Your task to perform on an android device: toggle notification dots Image 0: 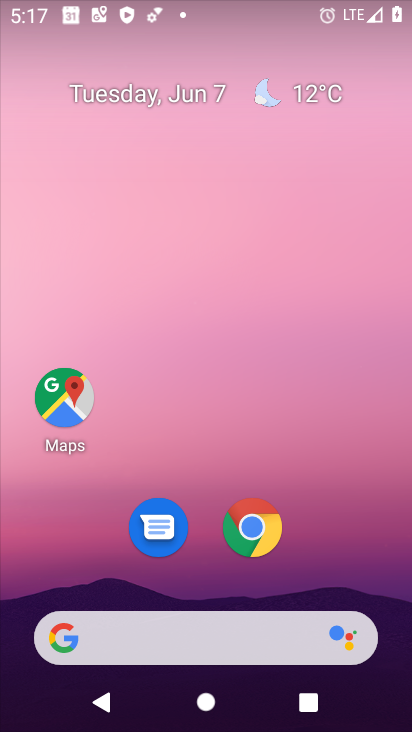
Step 0: drag from (324, 570) to (229, 5)
Your task to perform on an android device: toggle notification dots Image 1: 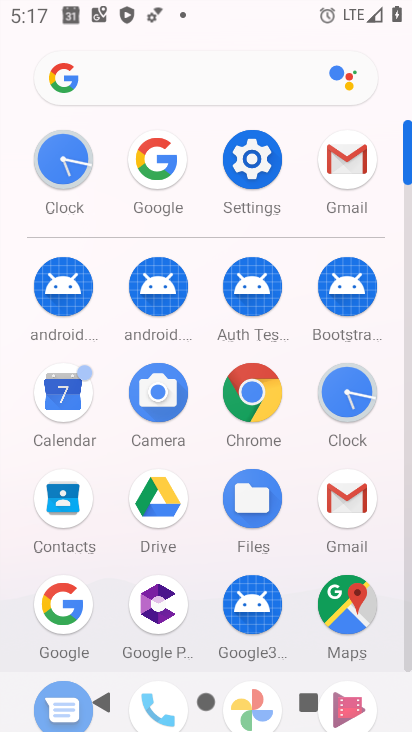
Step 1: click (251, 159)
Your task to perform on an android device: toggle notification dots Image 2: 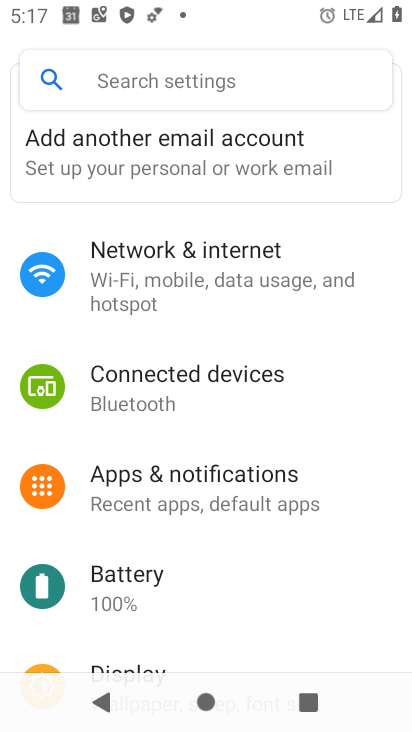
Step 2: click (193, 480)
Your task to perform on an android device: toggle notification dots Image 3: 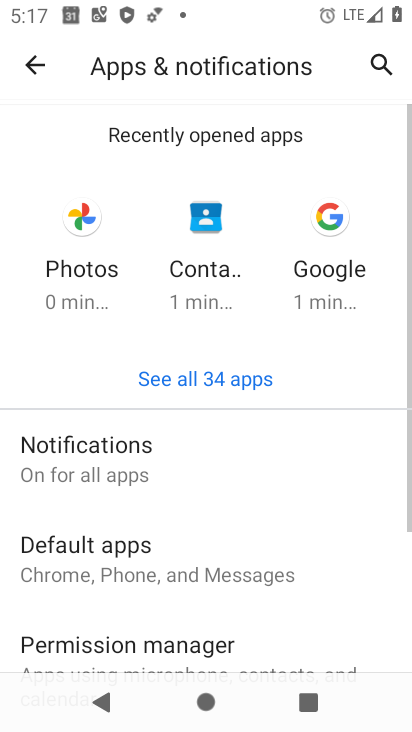
Step 3: click (129, 459)
Your task to perform on an android device: toggle notification dots Image 4: 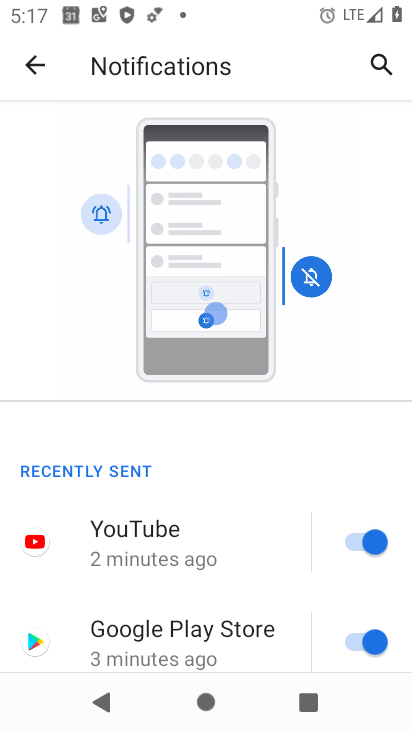
Step 4: drag from (199, 579) to (204, 247)
Your task to perform on an android device: toggle notification dots Image 5: 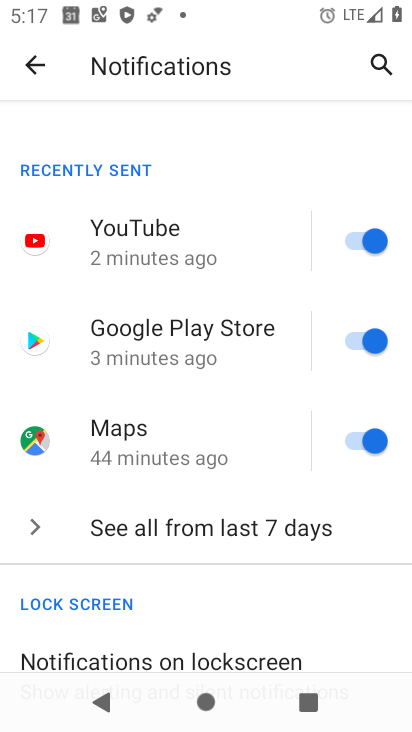
Step 5: drag from (175, 595) to (196, 307)
Your task to perform on an android device: toggle notification dots Image 6: 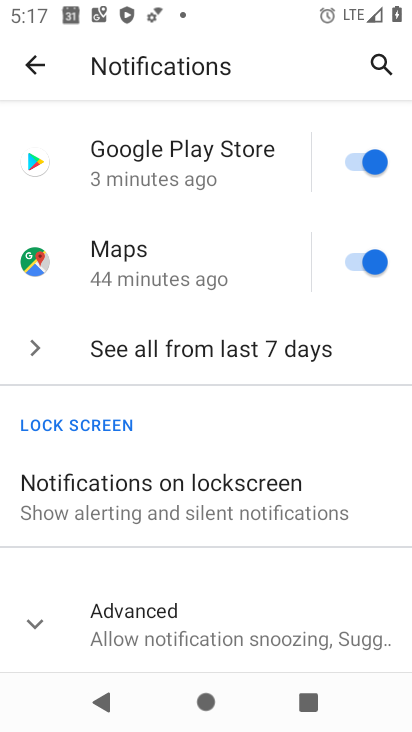
Step 6: click (220, 637)
Your task to perform on an android device: toggle notification dots Image 7: 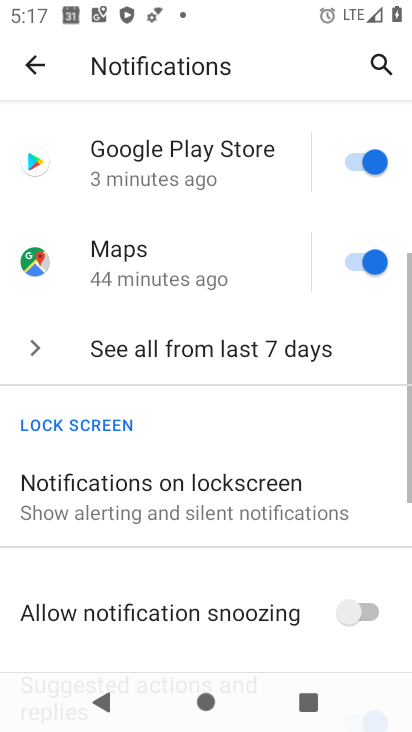
Step 7: drag from (192, 567) to (195, 292)
Your task to perform on an android device: toggle notification dots Image 8: 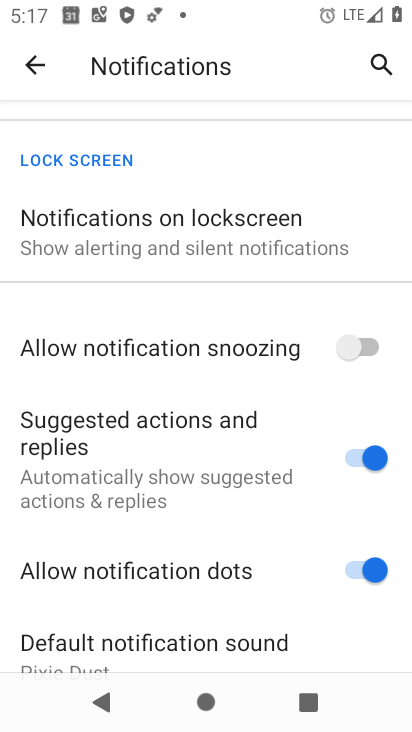
Step 8: click (367, 570)
Your task to perform on an android device: toggle notification dots Image 9: 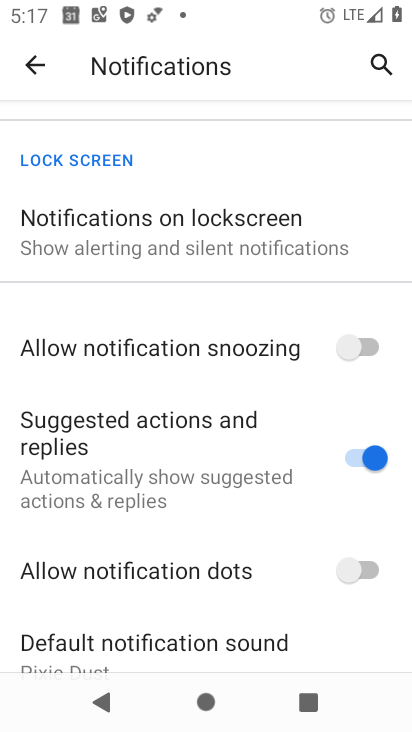
Step 9: task complete